Your task to perform on an android device: add a contact Image 0: 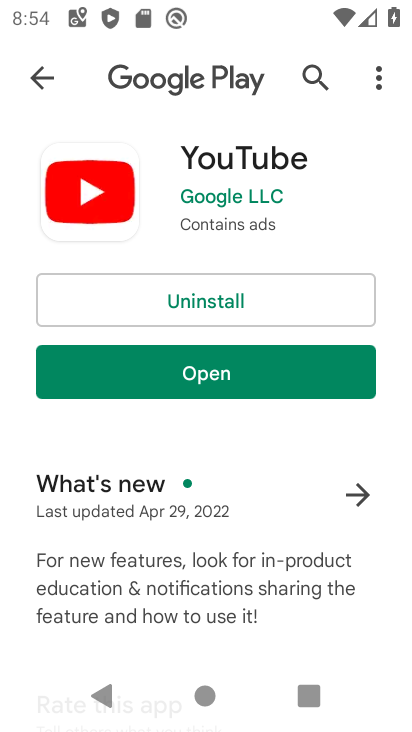
Step 0: press back button
Your task to perform on an android device: add a contact Image 1: 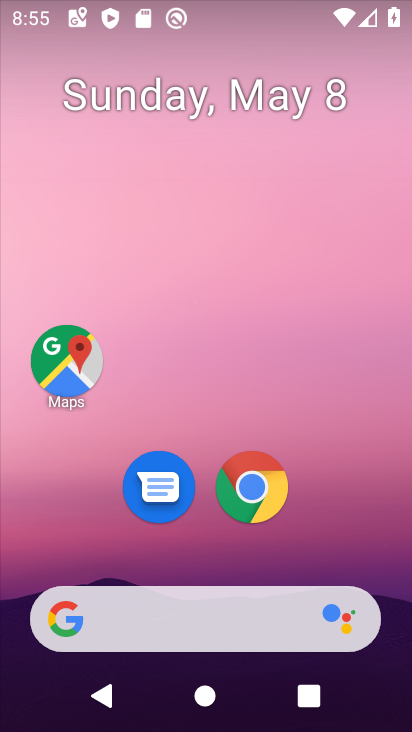
Step 1: drag from (183, 568) to (192, 2)
Your task to perform on an android device: add a contact Image 2: 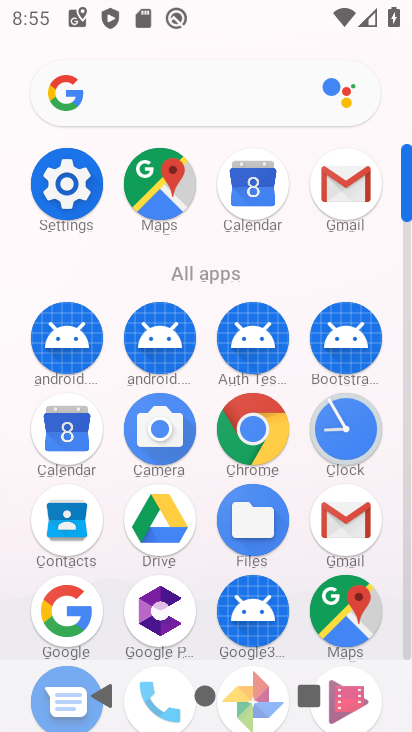
Step 2: click (74, 518)
Your task to perform on an android device: add a contact Image 3: 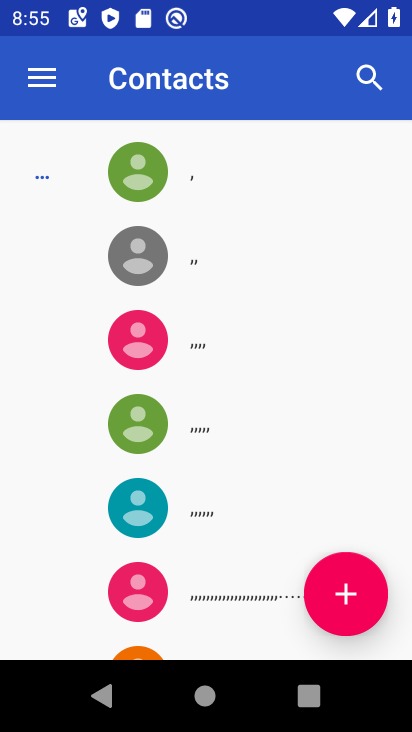
Step 3: click (358, 587)
Your task to perform on an android device: add a contact Image 4: 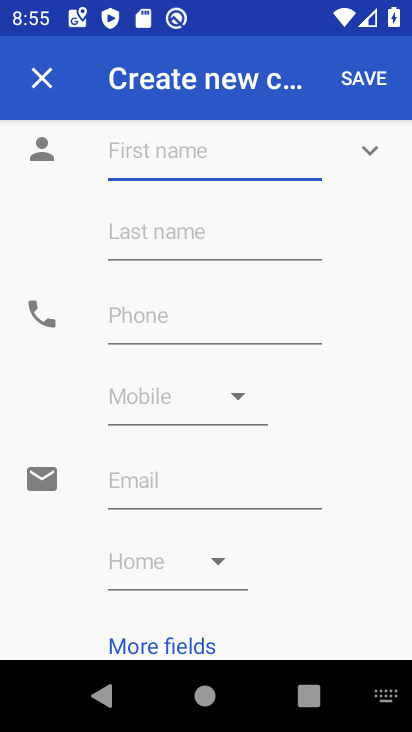
Step 4: click (140, 159)
Your task to perform on an android device: add a contact Image 5: 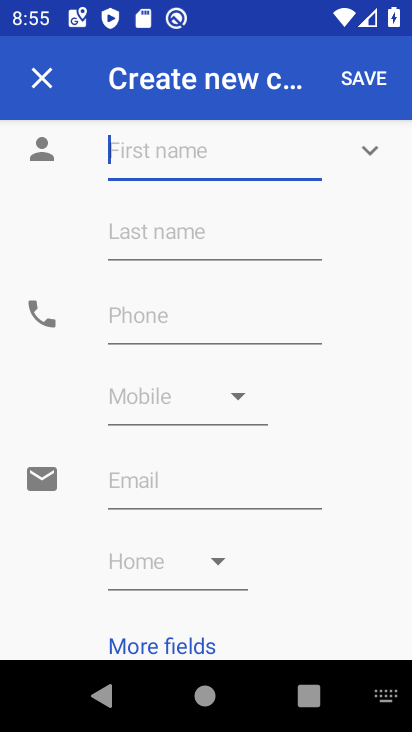
Step 5: type "rgr"
Your task to perform on an android device: add a contact Image 6: 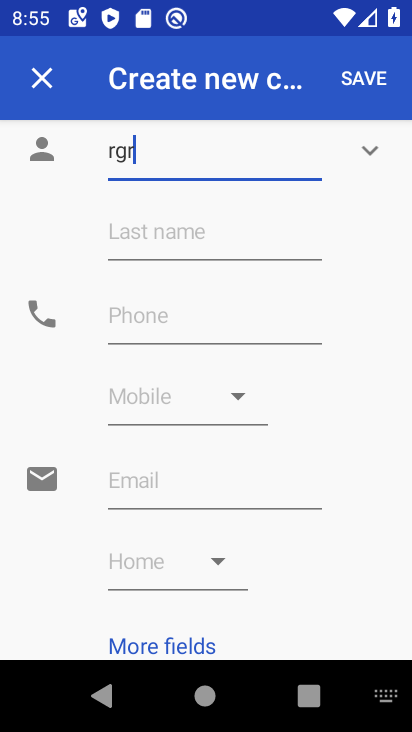
Step 6: click (125, 317)
Your task to perform on an android device: add a contact Image 7: 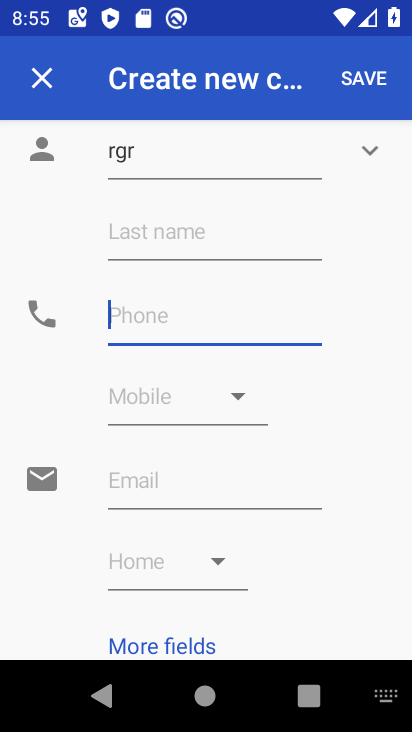
Step 7: type "54686846365865]"
Your task to perform on an android device: add a contact Image 8: 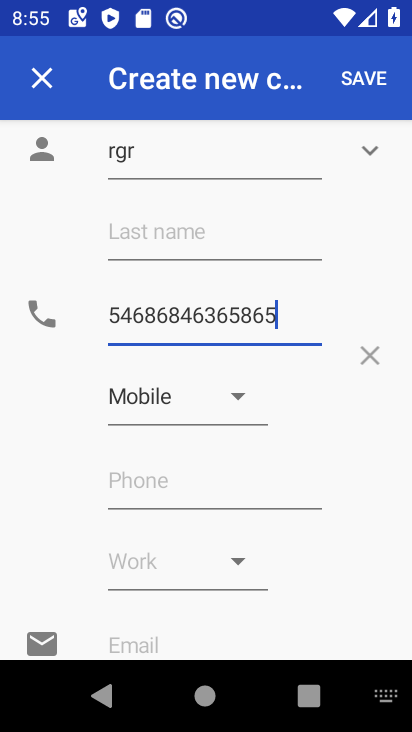
Step 8: click (363, 80)
Your task to perform on an android device: add a contact Image 9: 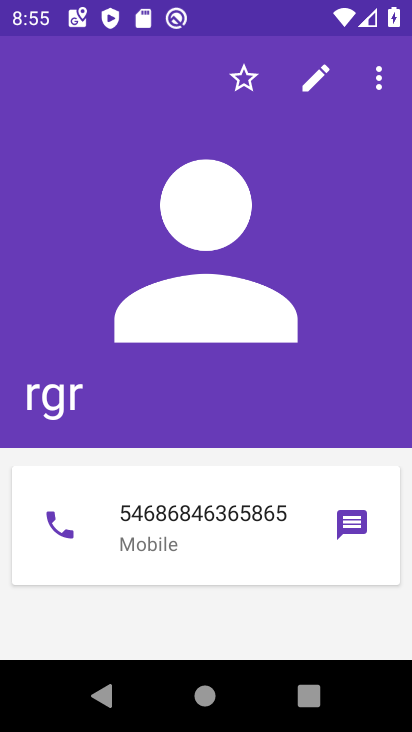
Step 9: task complete